Your task to perform on an android device: see creations saved in the google photos Image 0: 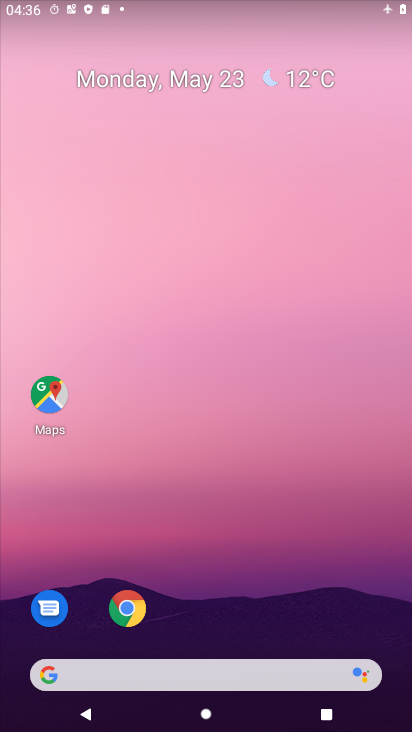
Step 0: drag from (225, 436) to (179, 47)
Your task to perform on an android device: see creations saved in the google photos Image 1: 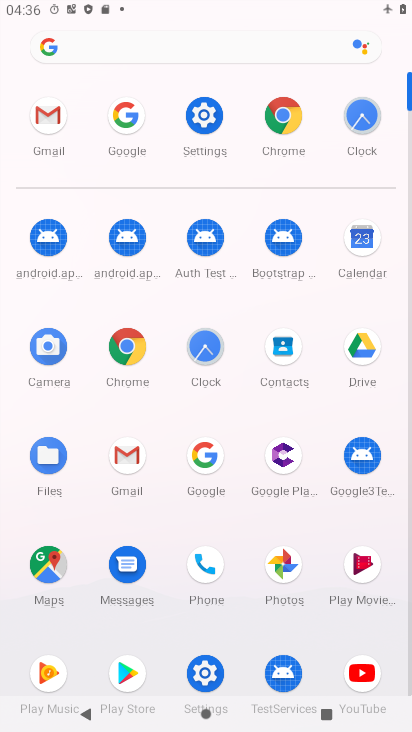
Step 1: click (277, 560)
Your task to perform on an android device: see creations saved in the google photos Image 2: 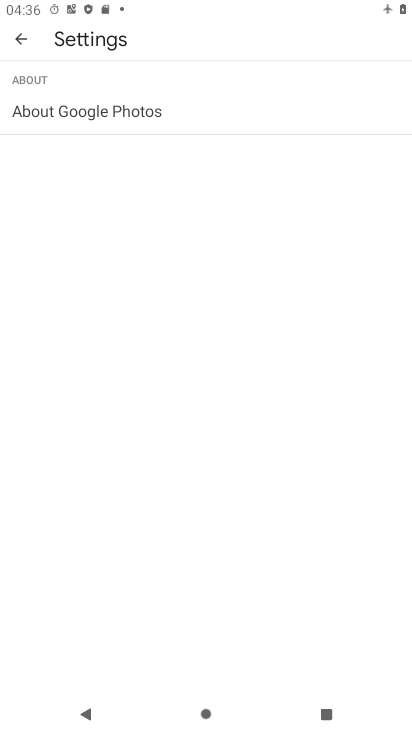
Step 2: click (23, 44)
Your task to perform on an android device: see creations saved in the google photos Image 3: 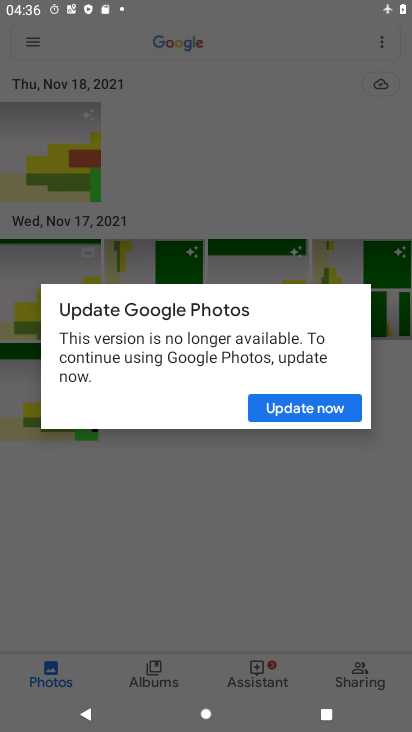
Step 3: click (327, 413)
Your task to perform on an android device: see creations saved in the google photos Image 4: 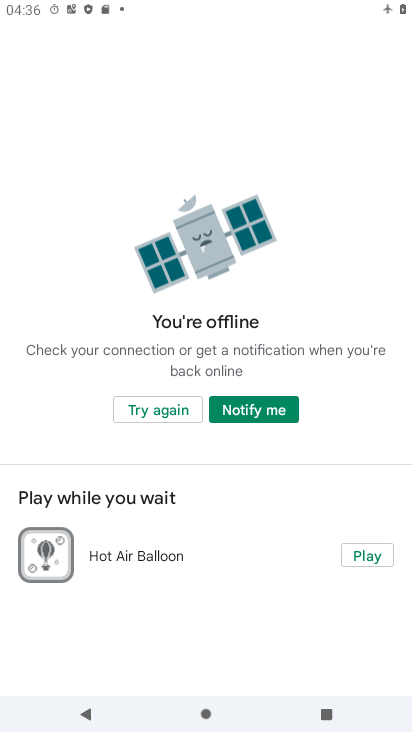
Step 4: task complete